Your task to perform on an android device: turn on translation in the chrome app Image 0: 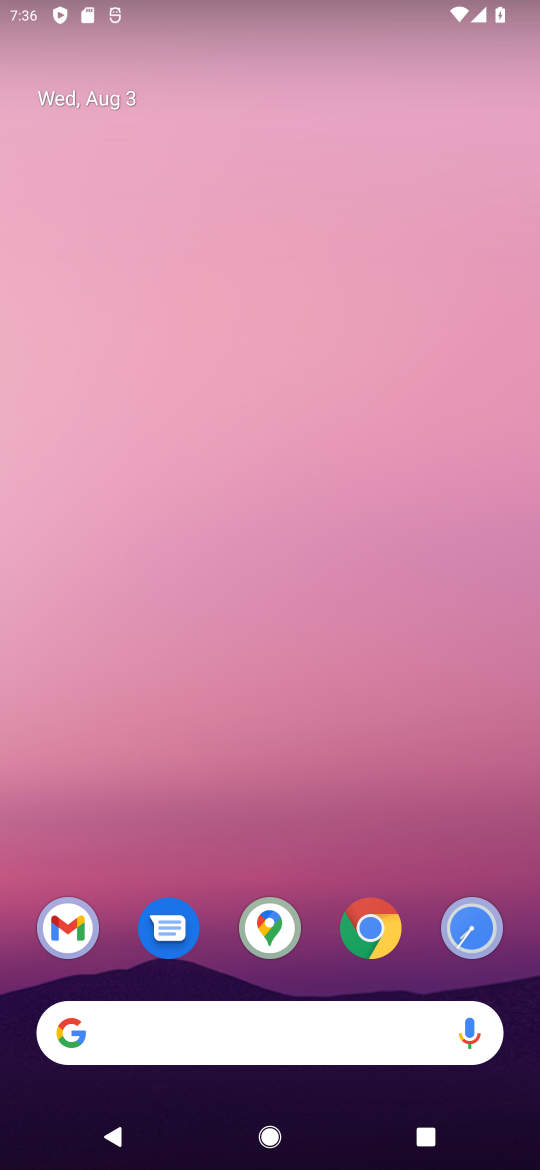
Step 0: click (378, 937)
Your task to perform on an android device: turn on translation in the chrome app Image 1: 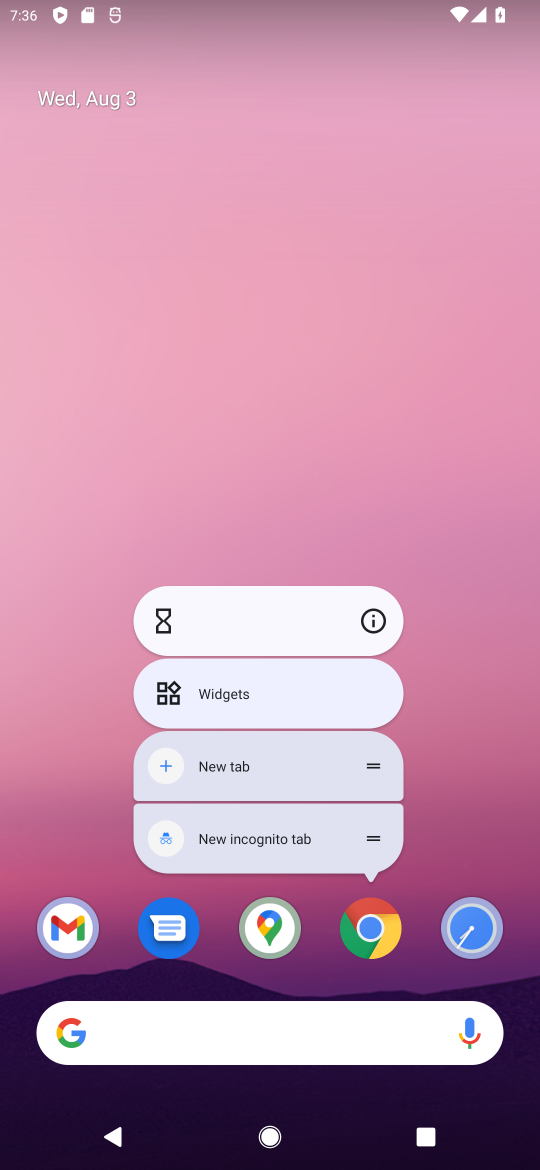
Step 1: click (378, 937)
Your task to perform on an android device: turn on translation in the chrome app Image 2: 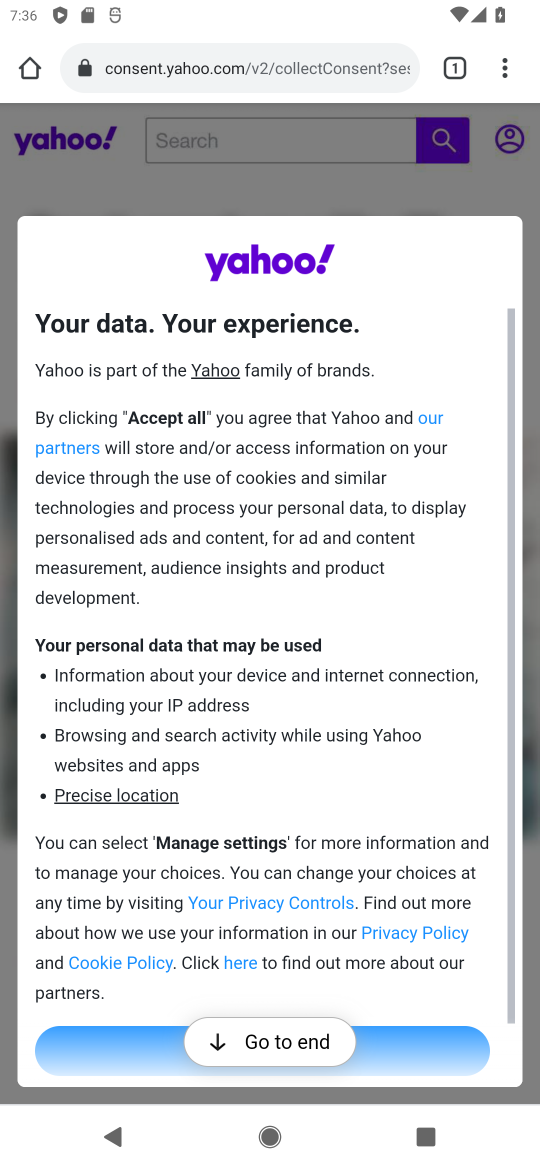
Step 2: click (499, 83)
Your task to perform on an android device: turn on translation in the chrome app Image 3: 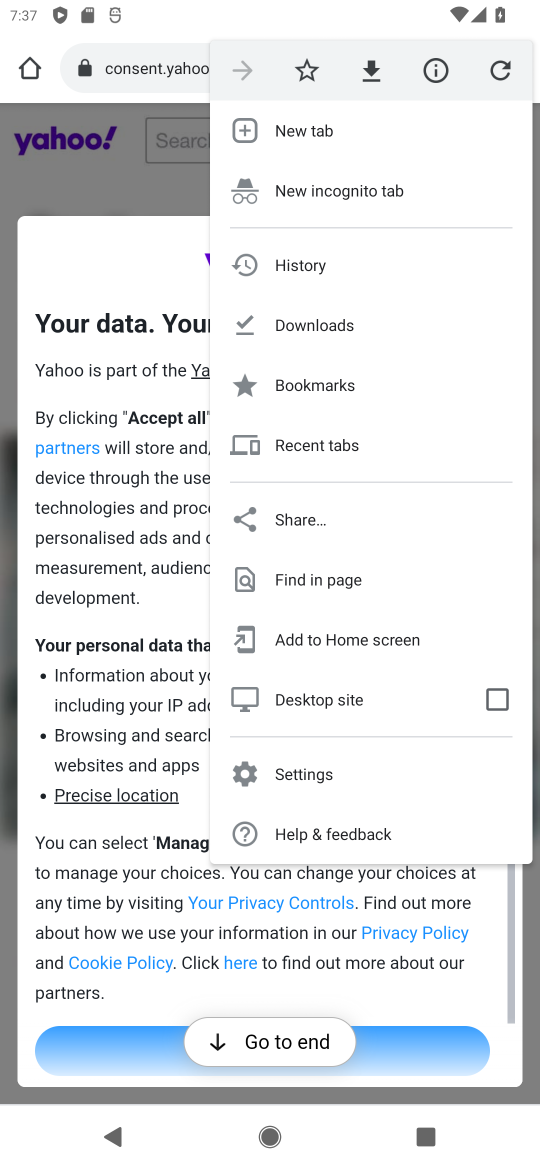
Step 3: click (354, 793)
Your task to perform on an android device: turn on translation in the chrome app Image 4: 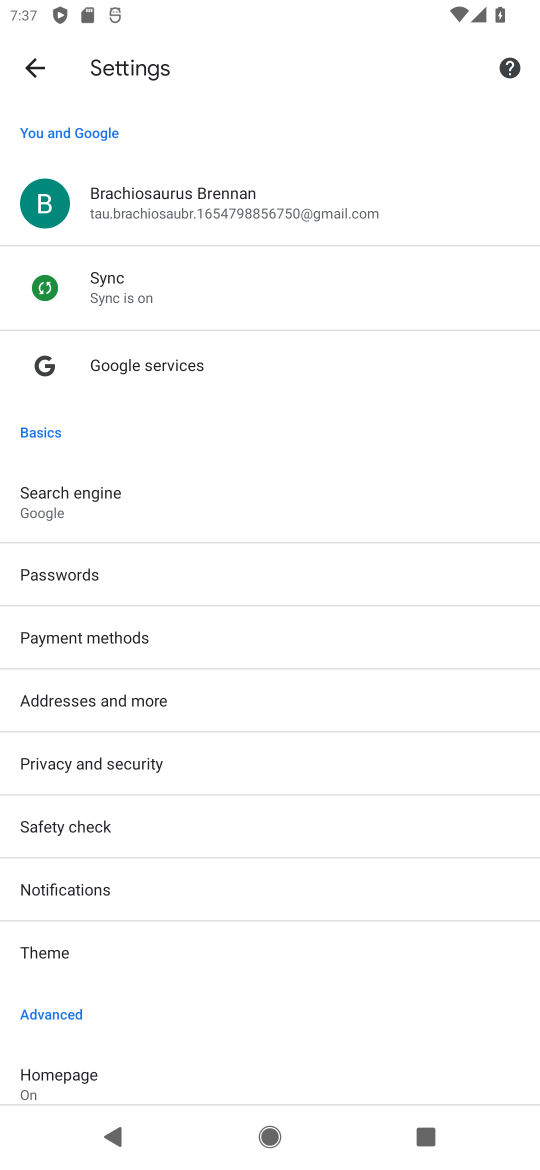
Step 4: drag from (222, 989) to (168, 436)
Your task to perform on an android device: turn on translation in the chrome app Image 5: 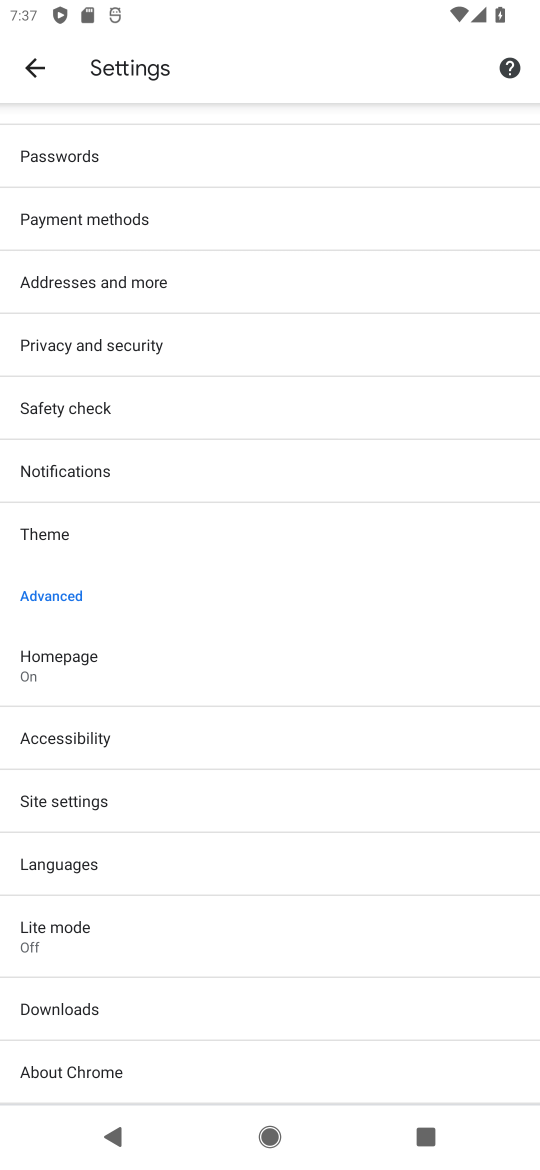
Step 5: click (144, 880)
Your task to perform on an android device: turn on translation in the chrome app Image 6: 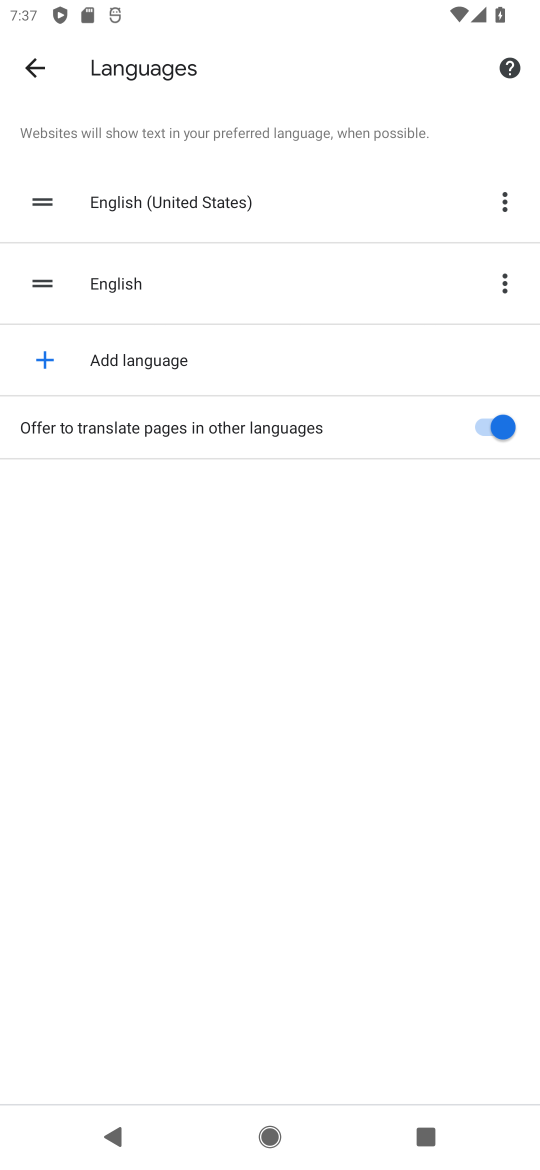
Step 6: task complete